Your task to perform on an android device: toggle notification dots Image 0: 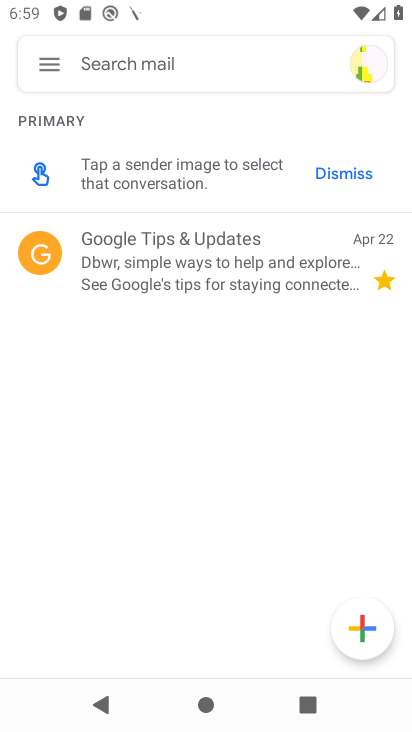
Step 0: press home button
Your task to perform on an android device: toggle notification dots Image 1: 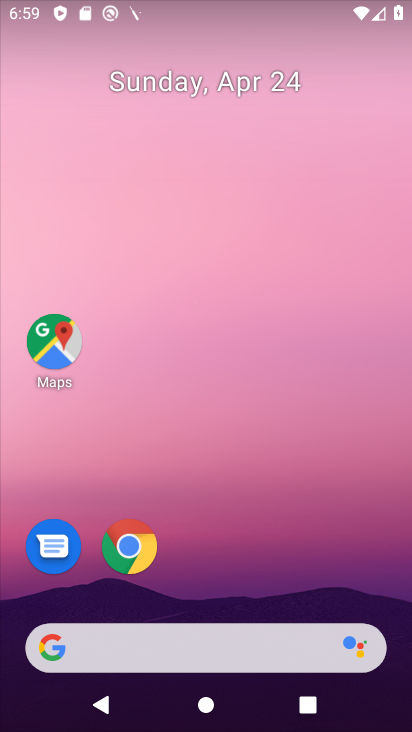
Step 1: drag from (211, 581) to (187, 19)
Your task to perform on an android device: toggle notification dots Image 2: 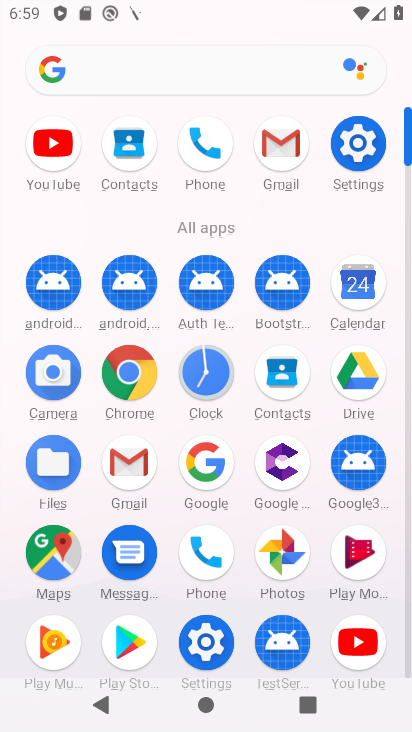
Step 2: click (357, 141)
Your task to perform on an android device: toggle notification dots Image 3: 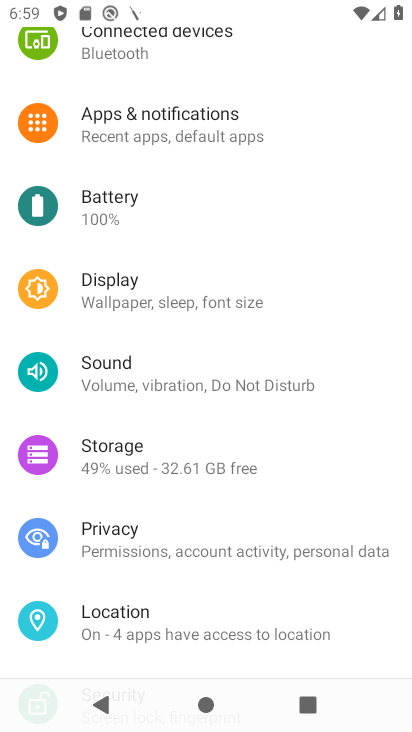
Step 3: click (175, 104)
Your task to perform on an android device: toggle notification dots Image 4: 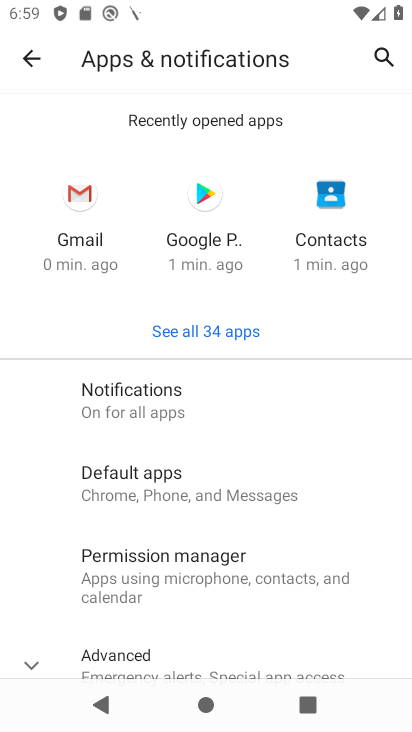
Step 4: click (134, 386)
Your task to perform on an android device: toggle notification dots Image 5: 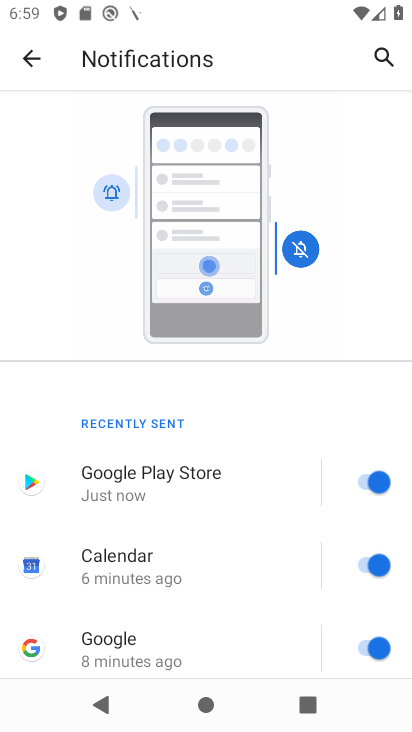
Step 5: click (111, 40)
Your task to perform on an android device: toggle notification dots Image 6: 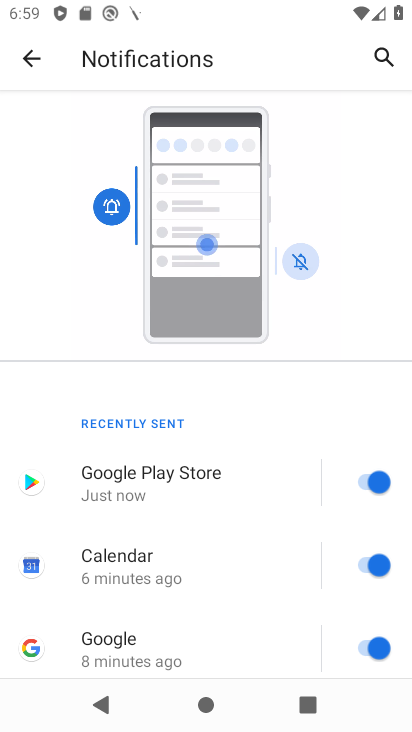
Step 6: drag from (240, 635) to (269, 162)
Your task to perform on an android device: toggle notification dots Image 7: 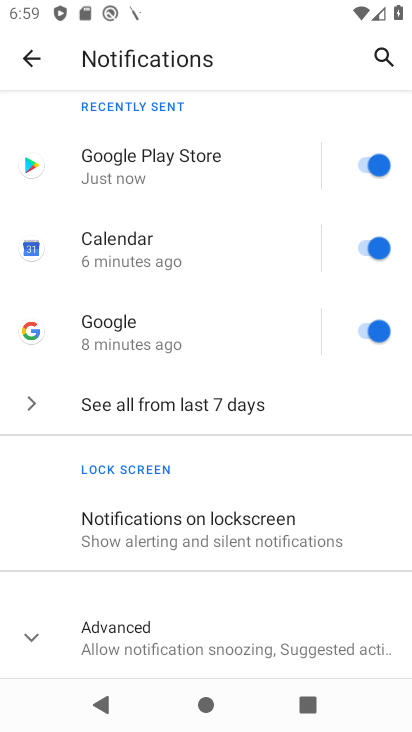
Step 7: click (29, 642)
Your task to perform on an android device: toggle notification dots Image 8: 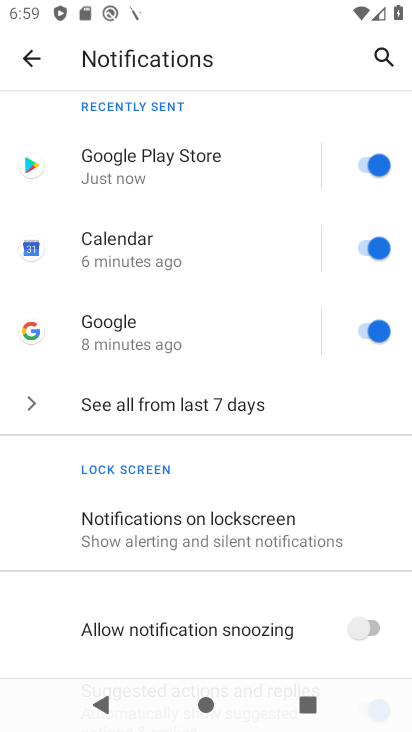
Step 8: drag from (182, 601) to (144, 194)
Your task to perform on an android device: toggle notification dots Image 9: 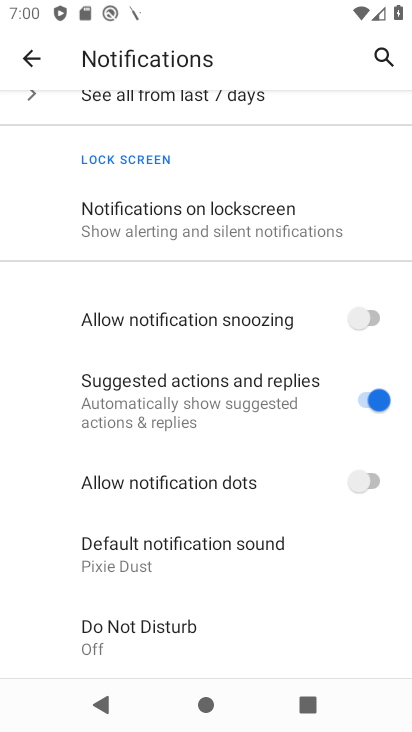
Step 9: click (364, 482)
Your task to perform on an android device: toggle notification dots Image 10: 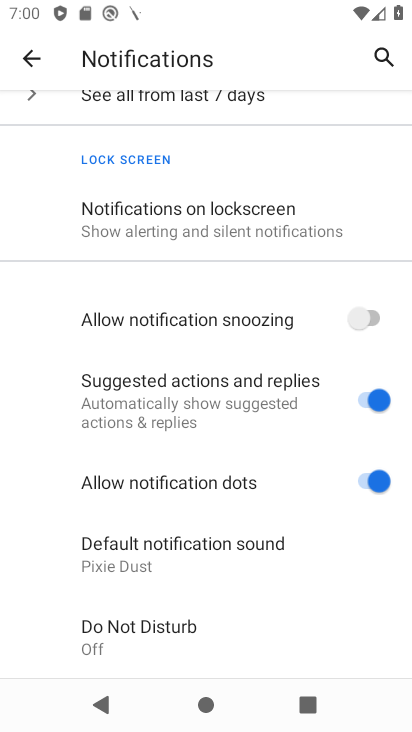
Step 10: task complete